Your task to perform on an android device: Open maps Image 0: 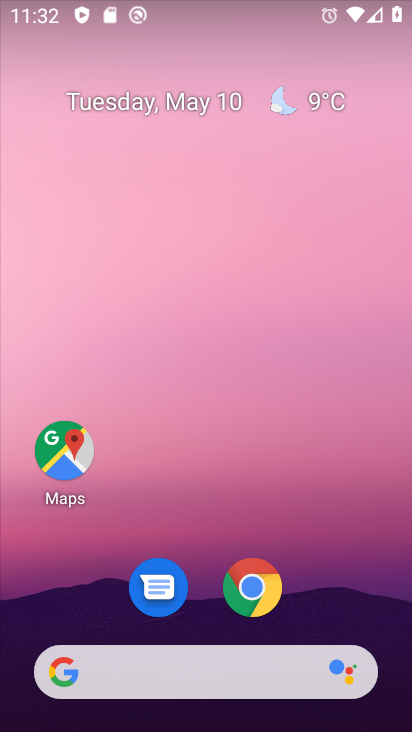
Step 0: click (64, 454)
Your task to perform on an android device: Open maps Image 1: 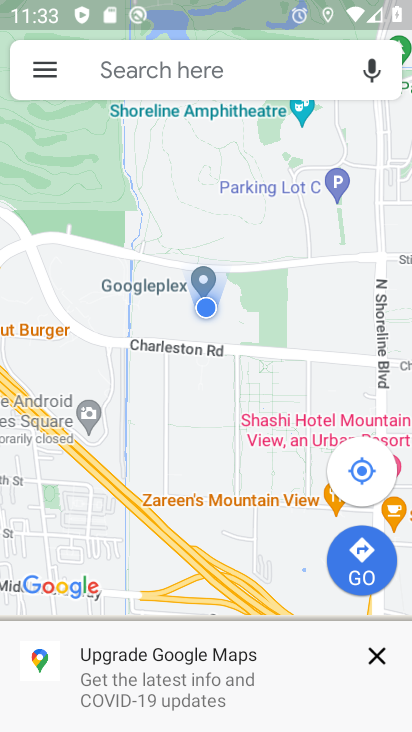
Step 1: task complete